Your task to perform on an android device: change the clock style Image 0: 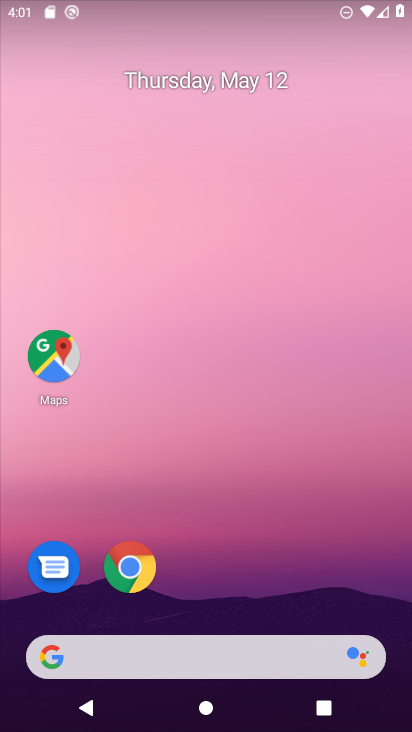
Step 0: drag from (273, 554) to (338, 136)
Your task to perform on an android device: change the clock style Image 1: 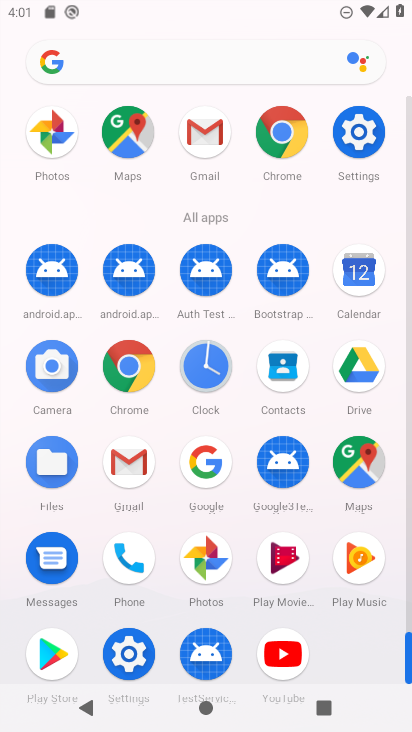
Step 1: click (218, 358)
Your task to perform on an android device: change the clock style Image 2: 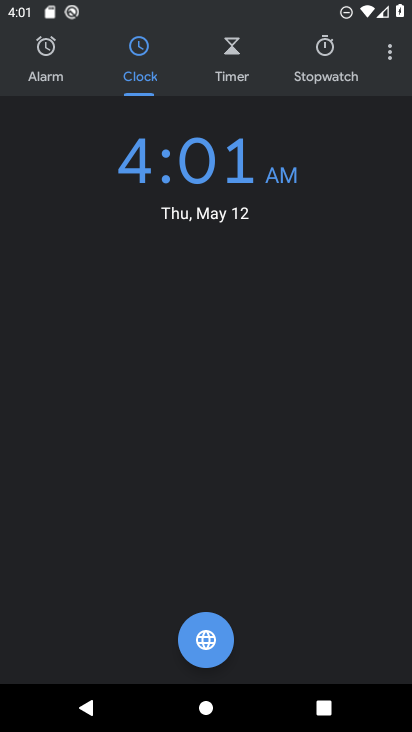
Step 2: click (387, 65)
Your task to perform on an android device: change the clock style Image 3: 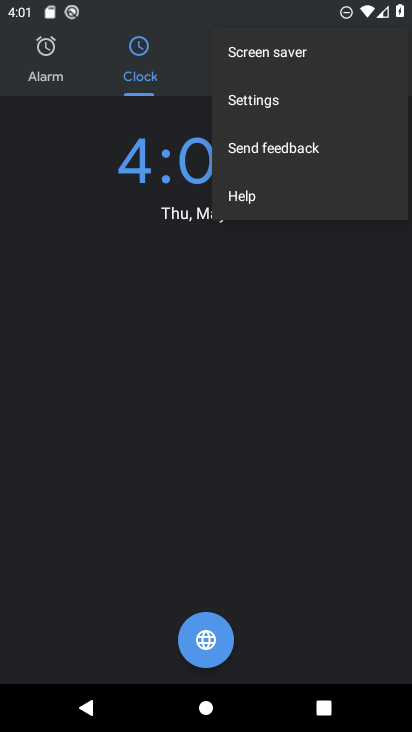
Step 3: click (342, 96)
Your task to perform on an android device: change the clock style Image 4: 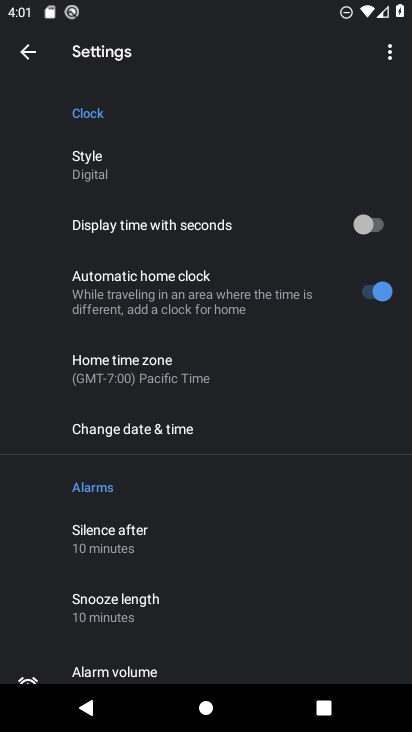
Step 4: click (197, 180)
Your task to perform on an android device: change the clock style Image 5: 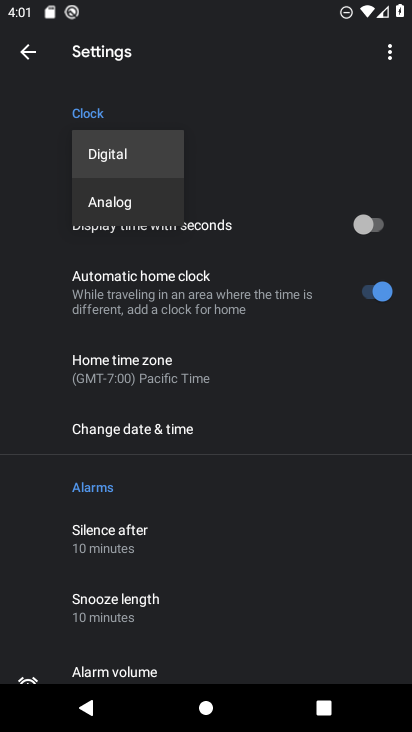
Step 5: click (165, 206)
Your task to perform on an android device: change the clock style Image 6: 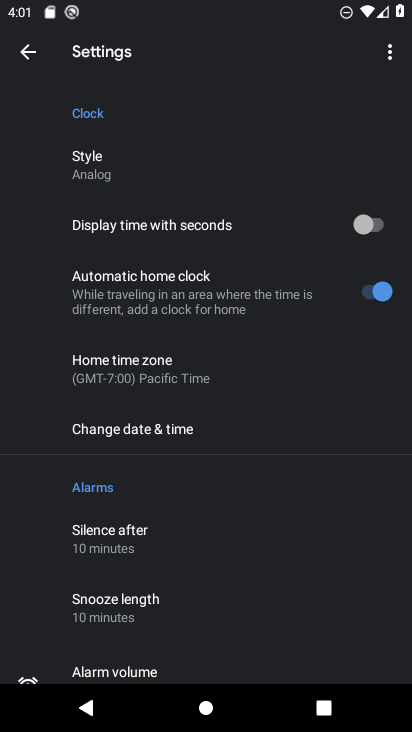
Step 6: task complete